Your task to perform on an android device: What's on my calendar tomorrow? Image 0: 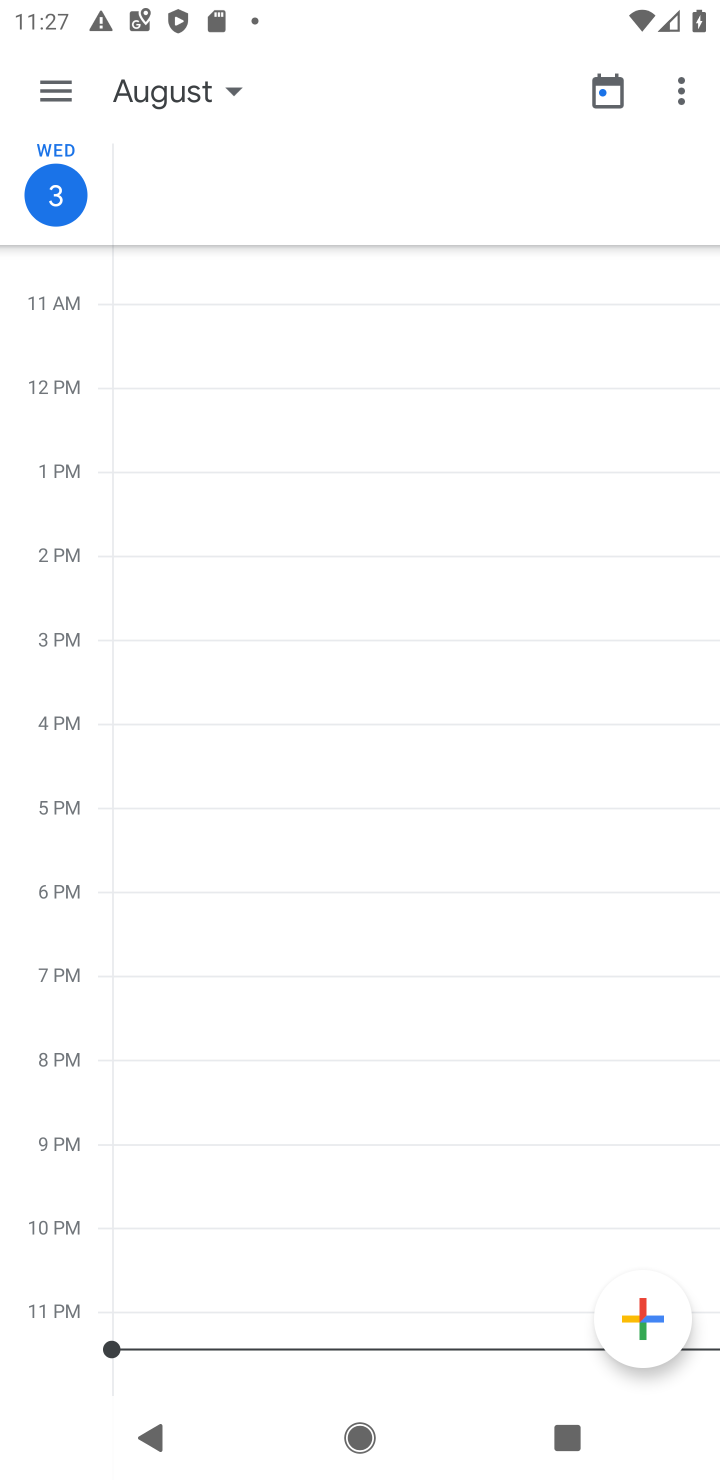
Step 0: press home button
Your task to perform on an android device: What's on my calendar tomorrow? Image 1: 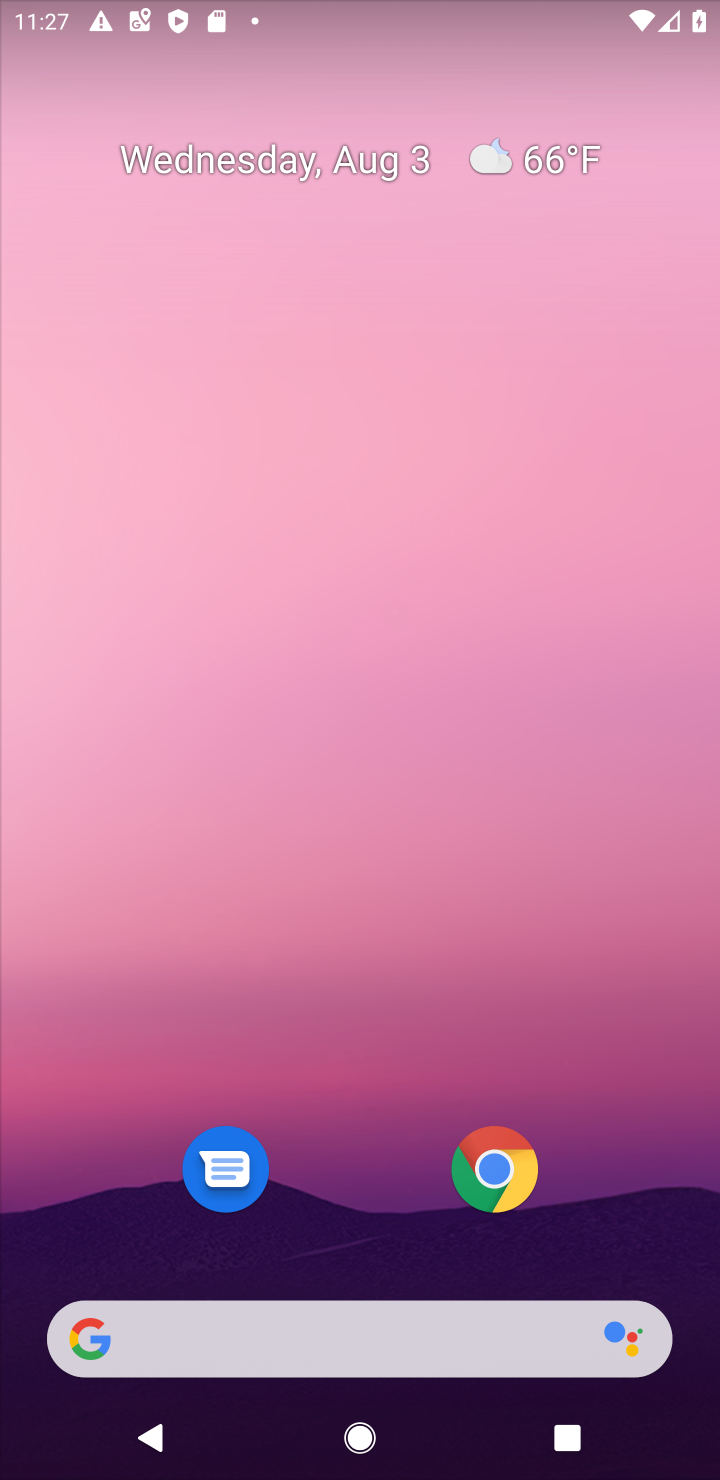
Step 1: drag from (372, 1240) to (382, 48)
Your task to perform on an android device: What's on my calendar tomorrow? Image 2: 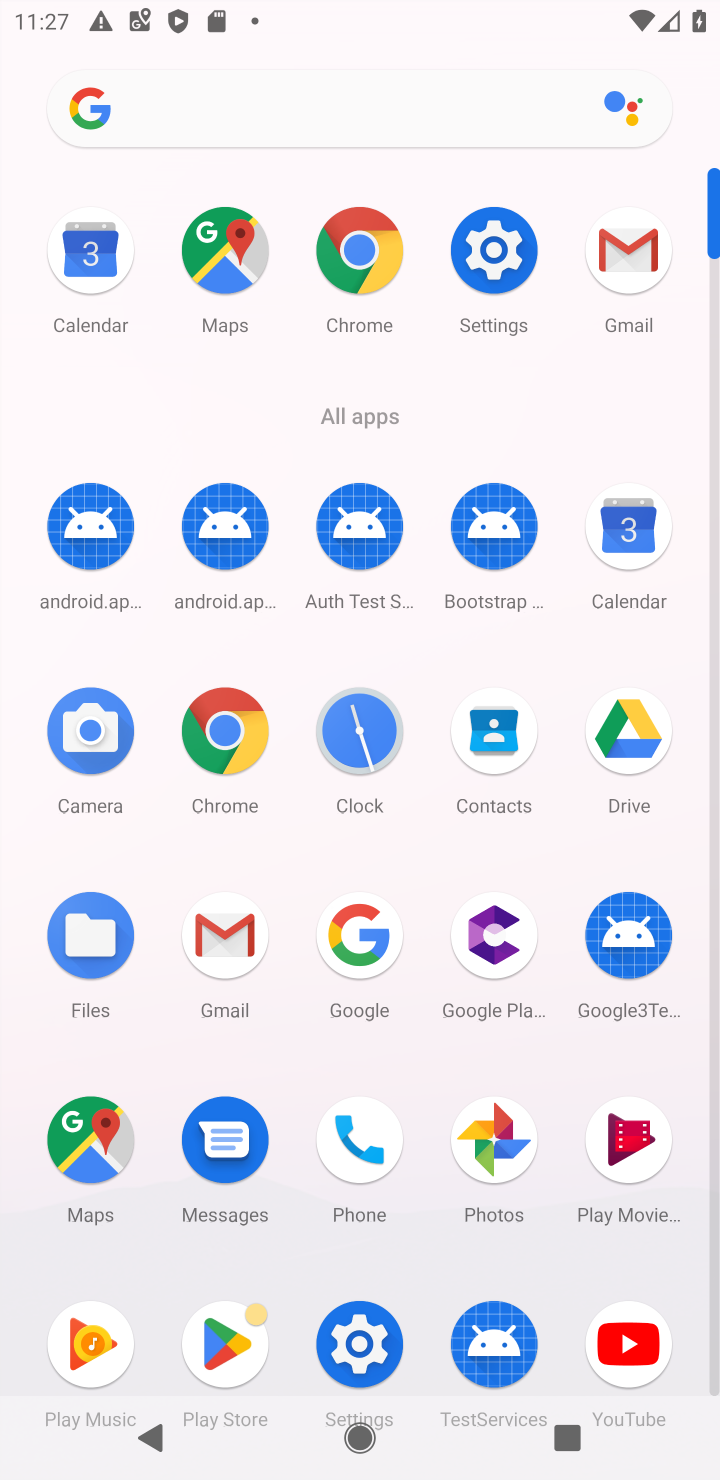
Step 2: click (626, 529)
Your task to perform on an android device: What's on my calendar tomorrow? Image 3: 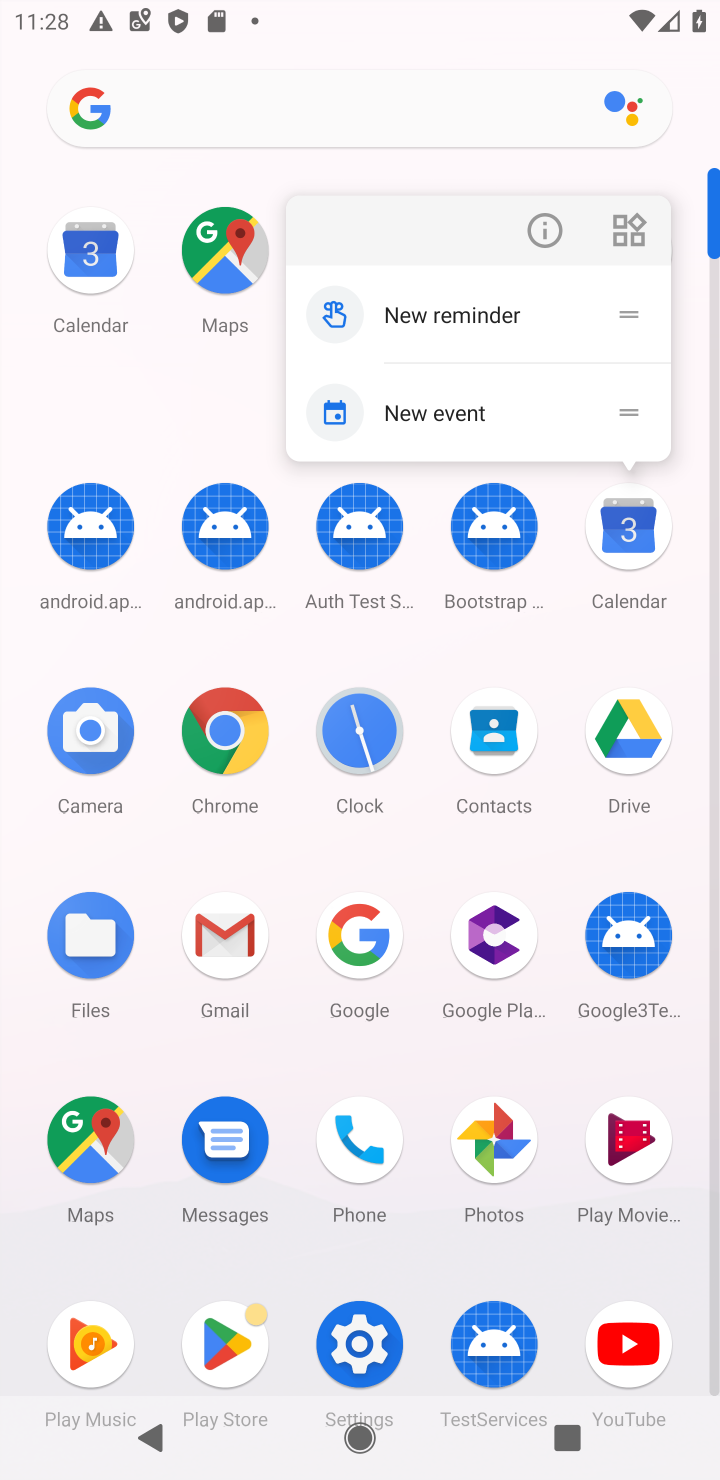
Step 3: click (626, 529)
Your task to perform on an android device: What's on my calendar tomorrow? Image 4: 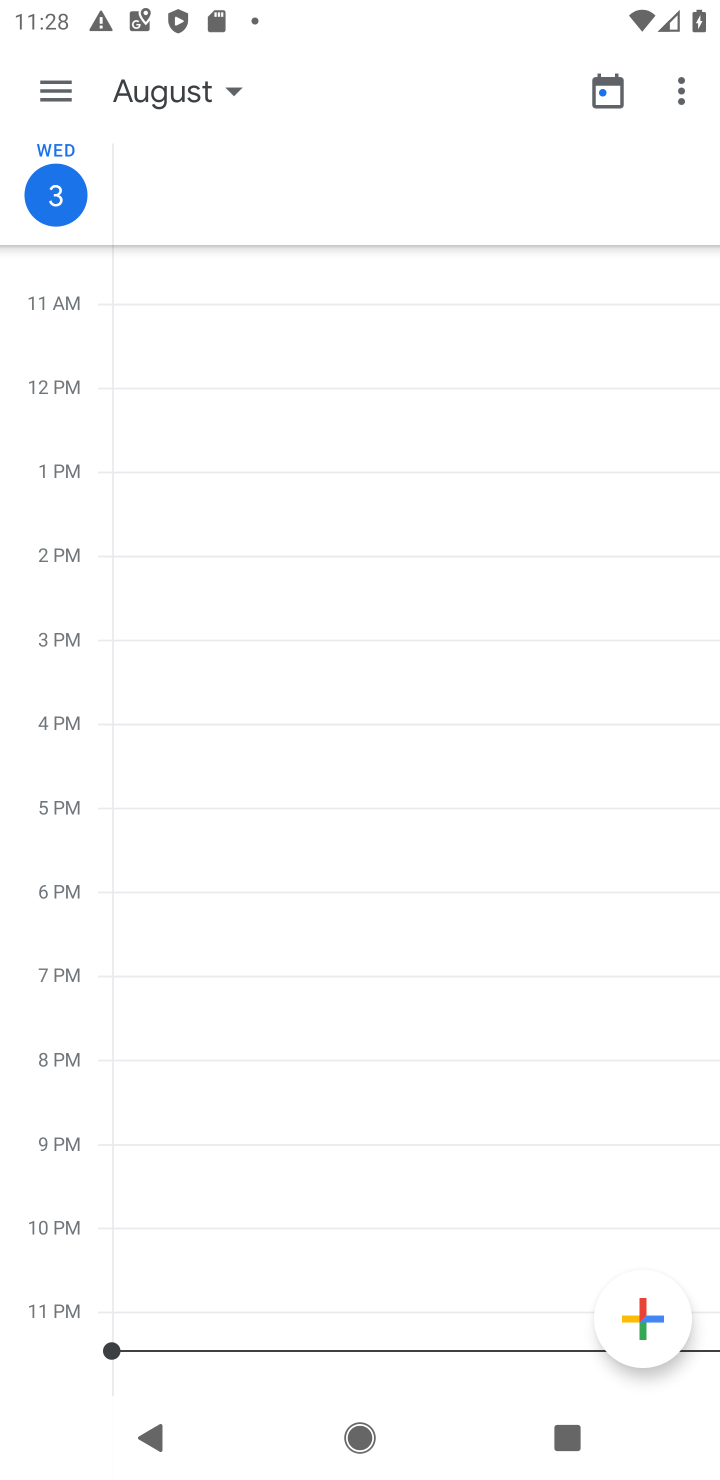
Step 4: click (234, 89)
Your task to perform on an android device: What's on my calendar tomorrow? Image 5: 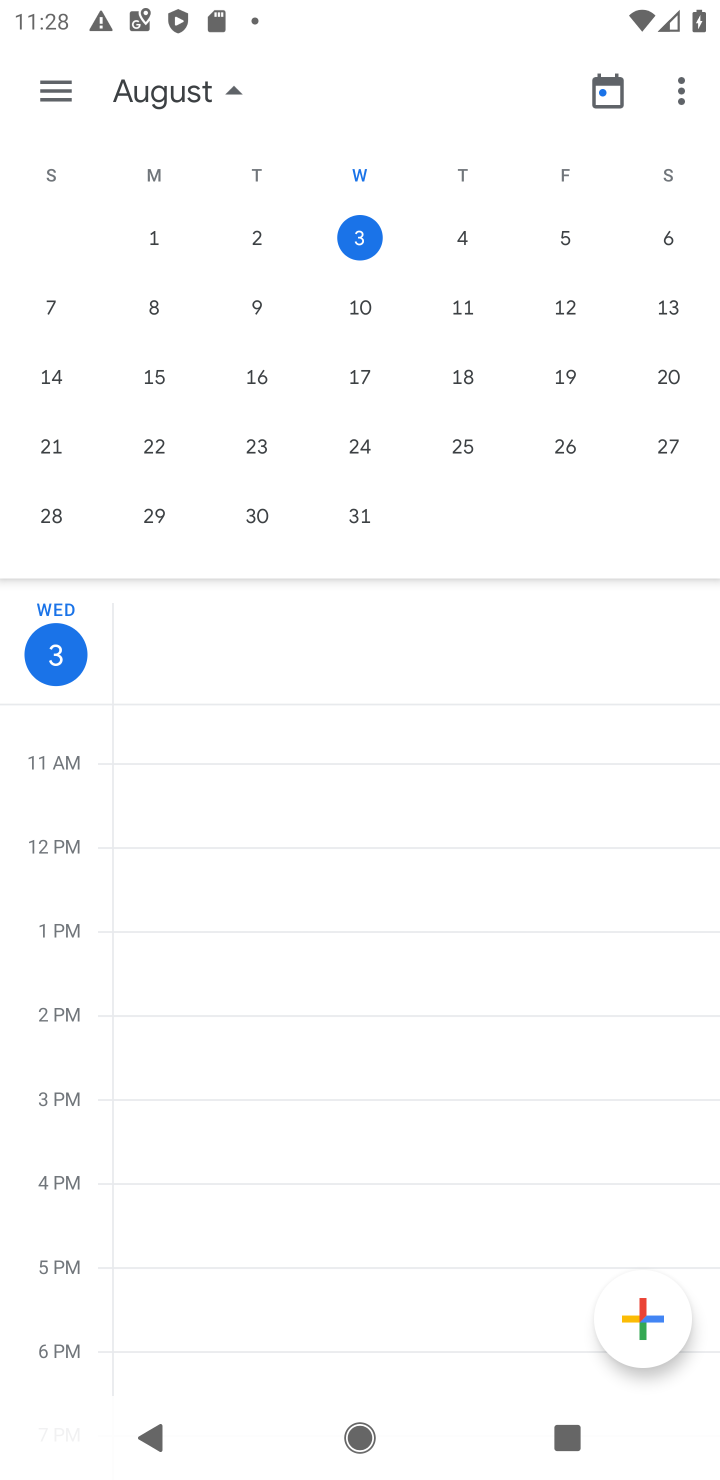
Step 5: click (464, 233)
Your task to perform on an android device: What's on my calendar tomorrow? Image 6: 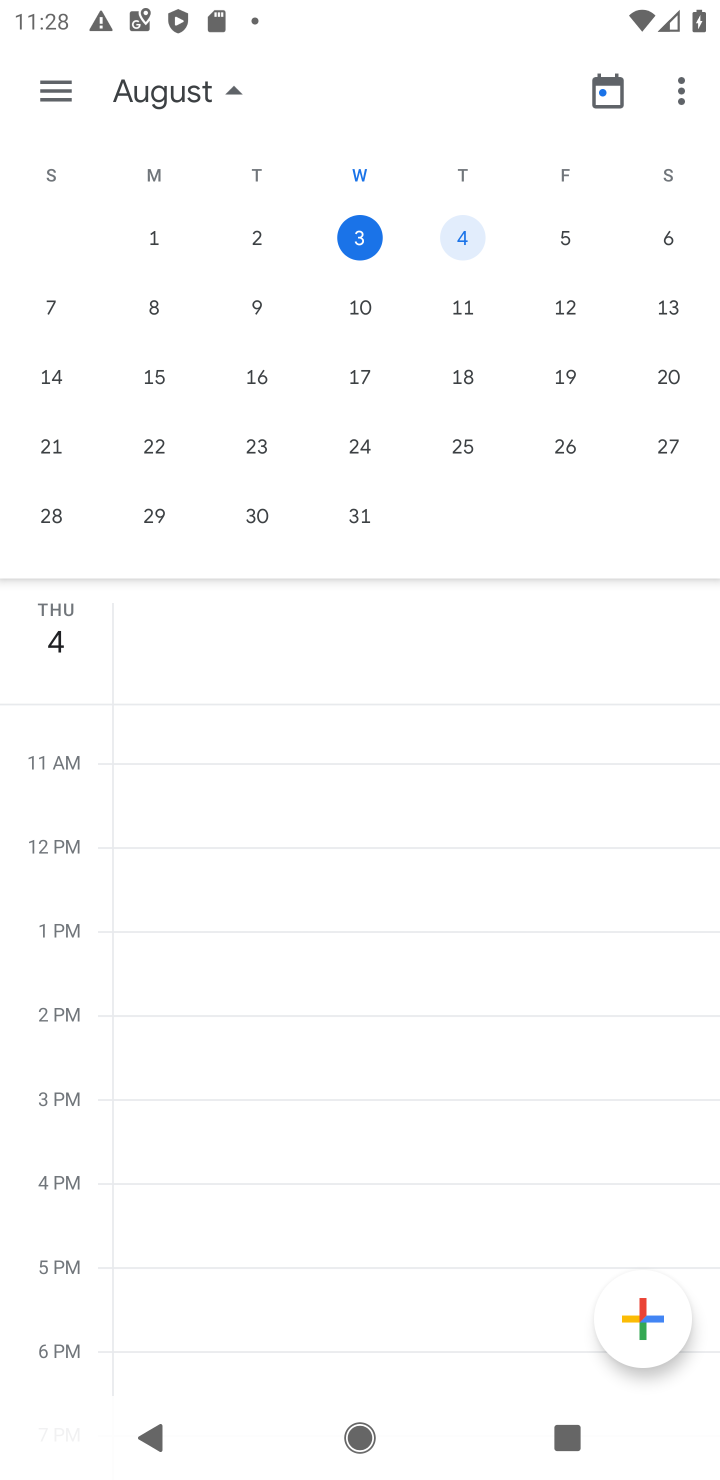
Step 6: click (49, 93)
Your task to perform on an android device: What's on my calendar tomorrow? Image 7: 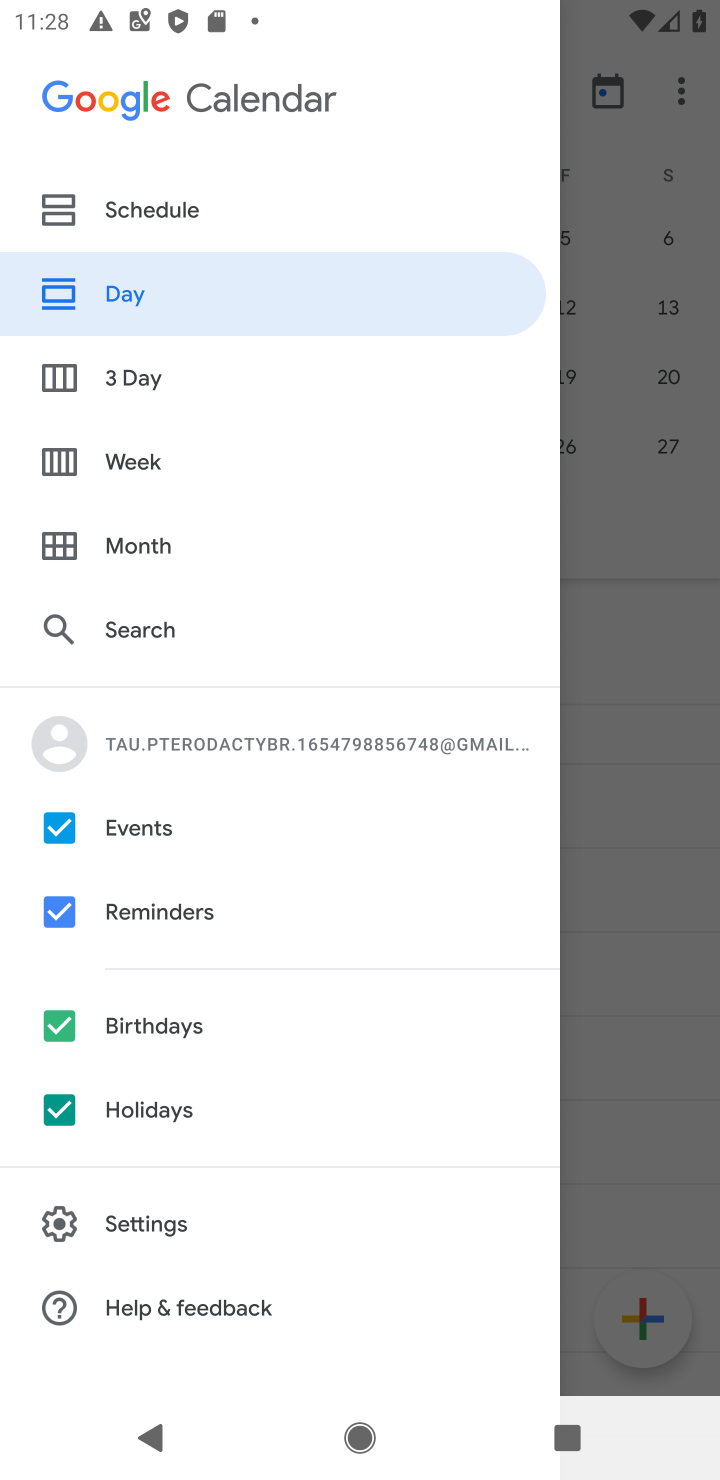
Step 7: click (118, 314)
Your task to perform on an android device: What's on my calendar tomorrow? Image 8: 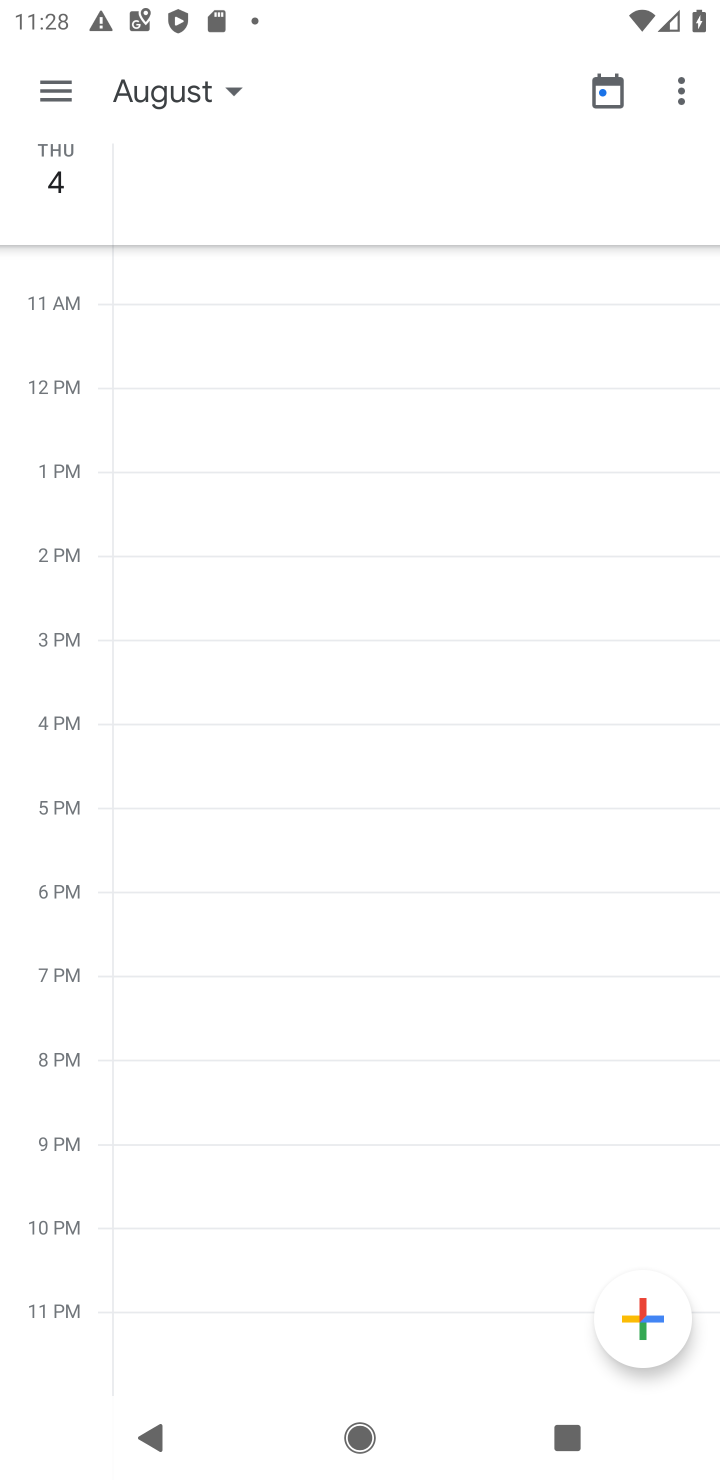
Step 8: task complete